Your task to perform on an android device: star an email in the gmail app Image 0: 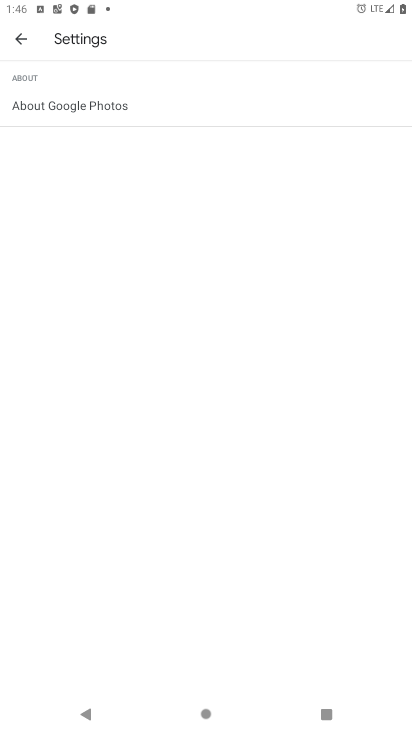
Step 0: press home button
Your task to perform on an android device: star an email in the gmail app Image 1: 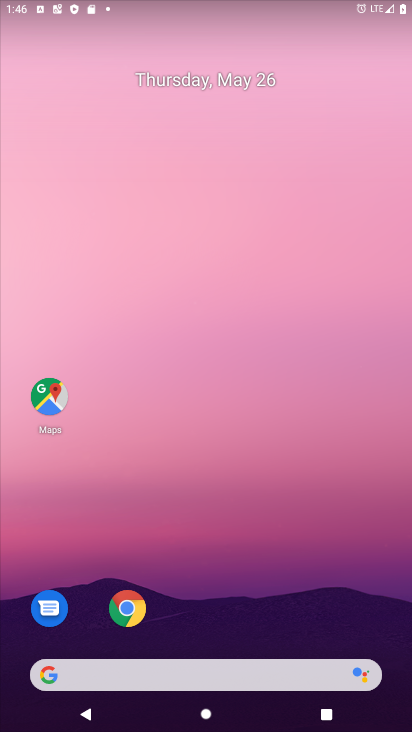
Step 1: drag from (346, 584) to (322, 244)
Your task to perform on an android device: star an email in the gmail app Image 2: 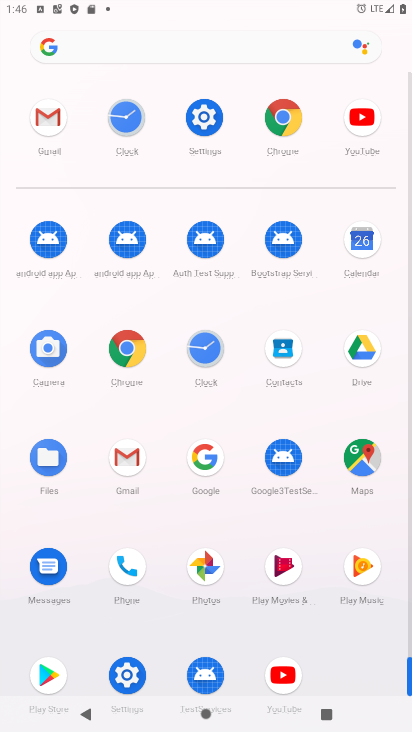
Step 2: click (126, 455)
Your task to perform on an android device: star an email in the gmail app Image 3: 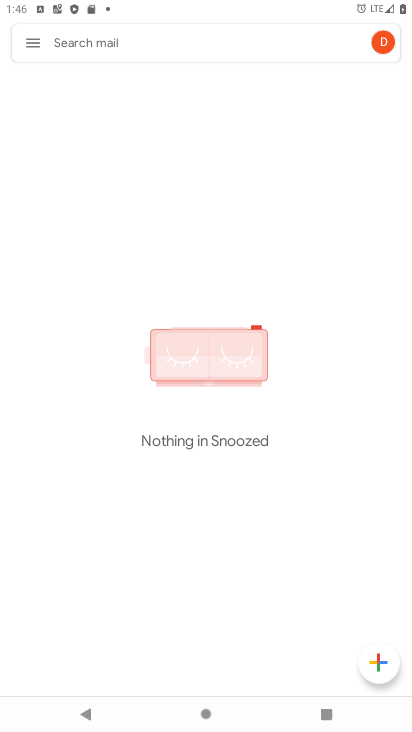
Step 3: click (30, 37)
Your task to perform on an android device: star an email in the gmail app Image 4: 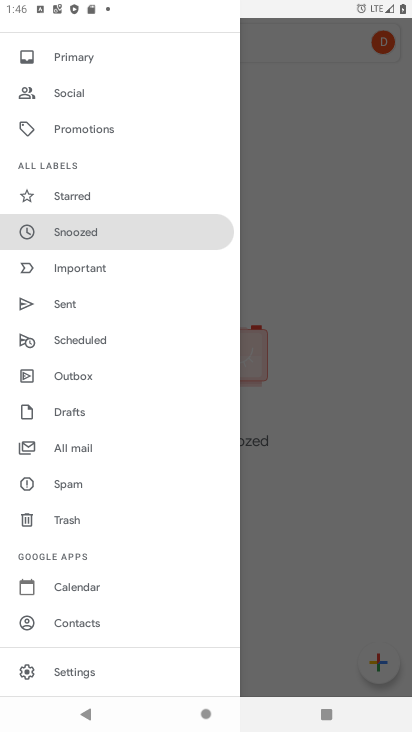
Step 4: click (77, 444)
Your task to perform on an android device: star an email in the gmail app Image 5: 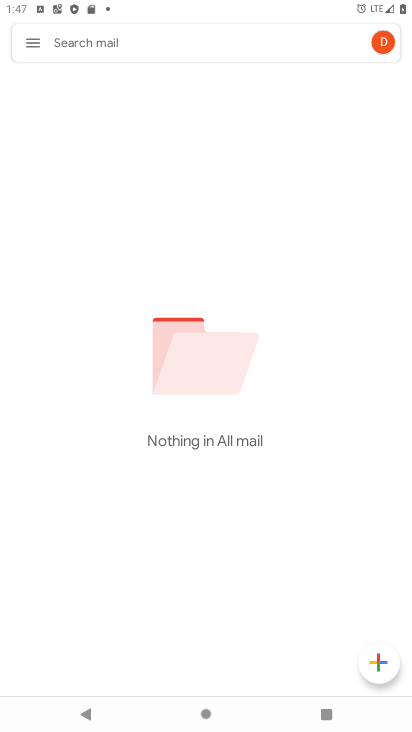
Step 5: task complete